Your task to perform on an android device: toggle javascript in the chrome app Image 0: 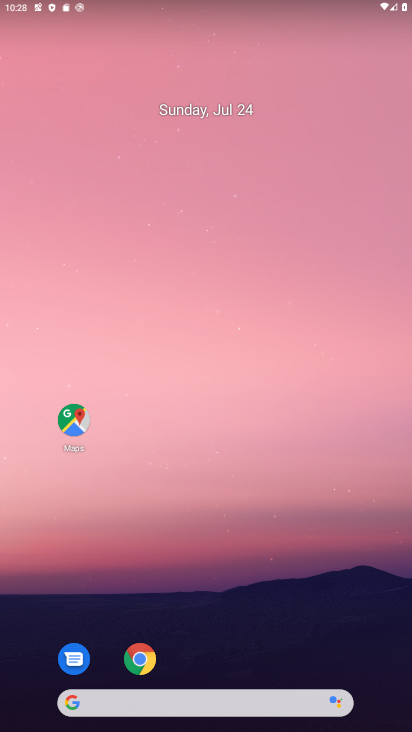
Step 0: click (134, 656)
Your task to perform on an android device: toggle javascript in the chrome app Image 1: 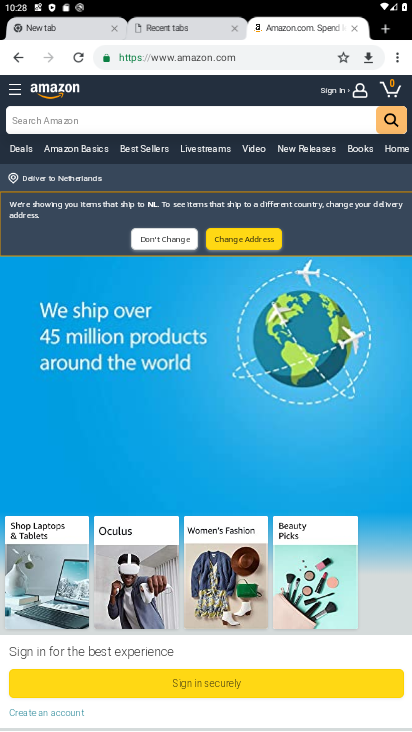
Step 1: click (392, 54)
Your task to perform on an android device: toggle javascript in the chrome app Image 2: 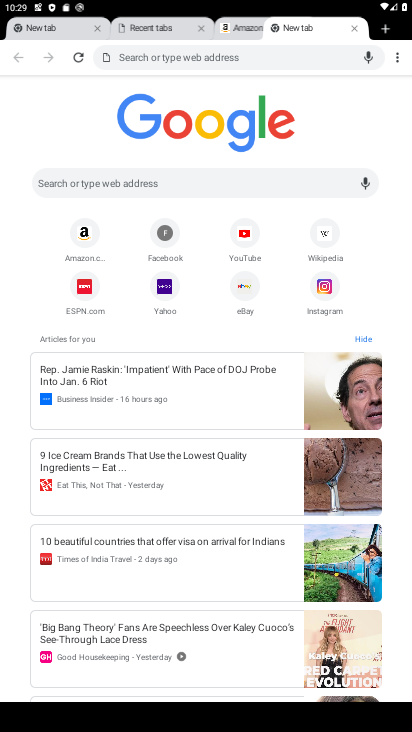
Step 2: click (400, 54)
Your task to perform on an android device: toggle javascript in the chrome app Image 3: 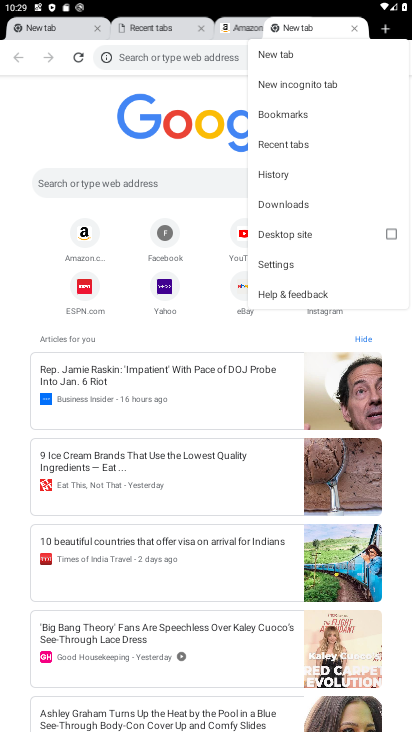
Step 3: click (264, 259)
Your task to perform on an android device: toggle javascript in the chrome app Image 4: 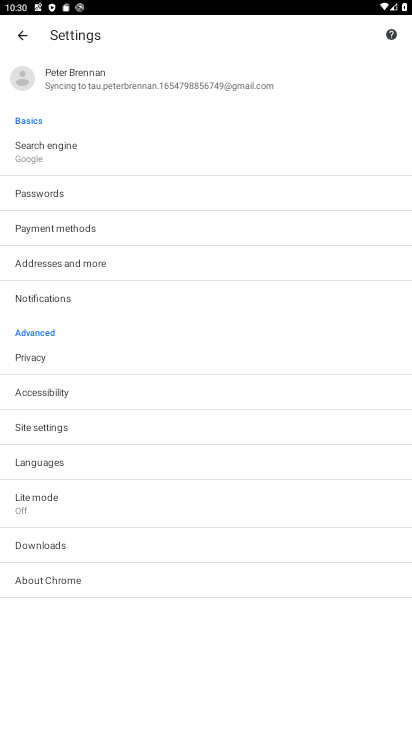
Step 4: click (73, 422)
Your task to perform on an android device: toggle javascript in the chrome app Image 5: 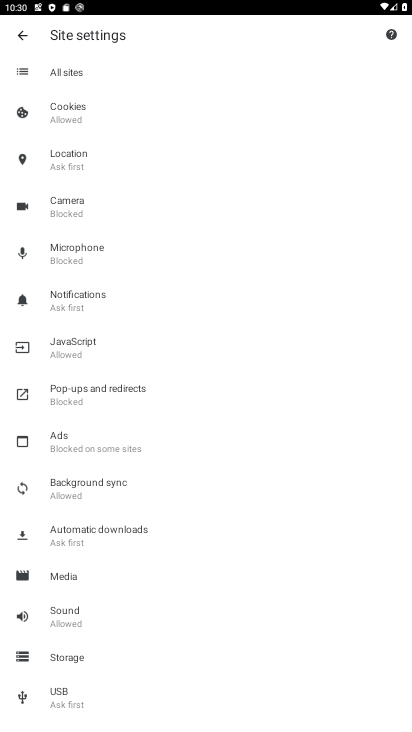
Step 5: click (89, 337)
Your task to perform on an android device: toggle javascript in the chrome app Image 6: 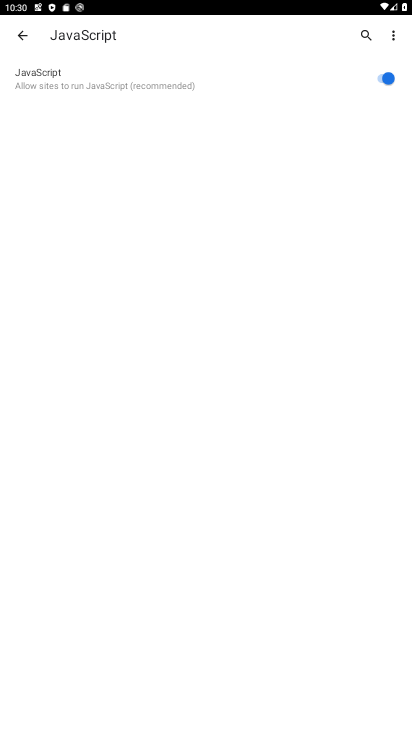
Step 6: click (379, 62)
Your task to perform on an android device: toggle javascript in the chrome app Image 7: 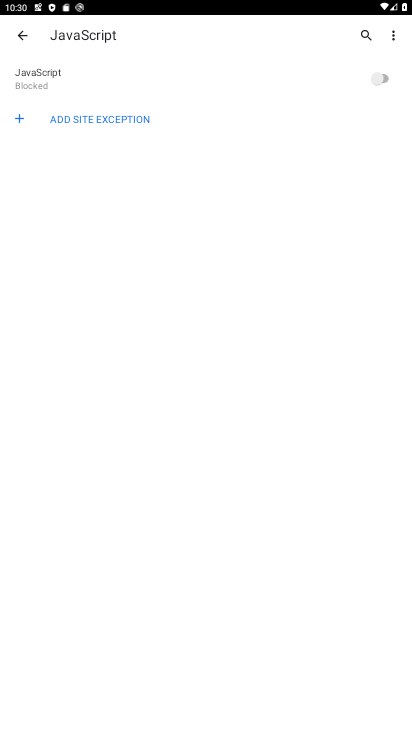
Step 7: task complete